Your task to perform on an android device: Search for Italian restaurants on Maps Image 0: 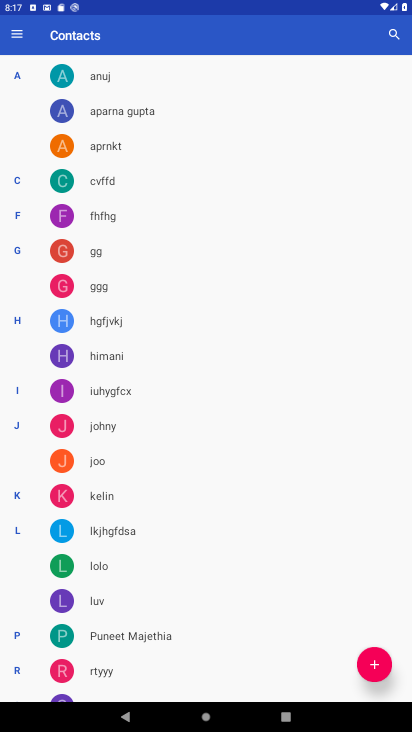
Step 0: press home button
Your task to perform on an android device: Search for Italian restaurants on Maps Image 1: 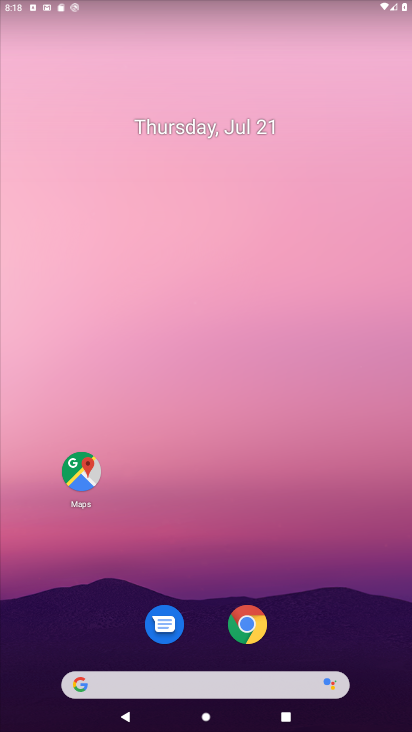
Step 1: click (75, 482)
Your task to perform on an android device: Search for Italian restaurants on Maps Image 2: 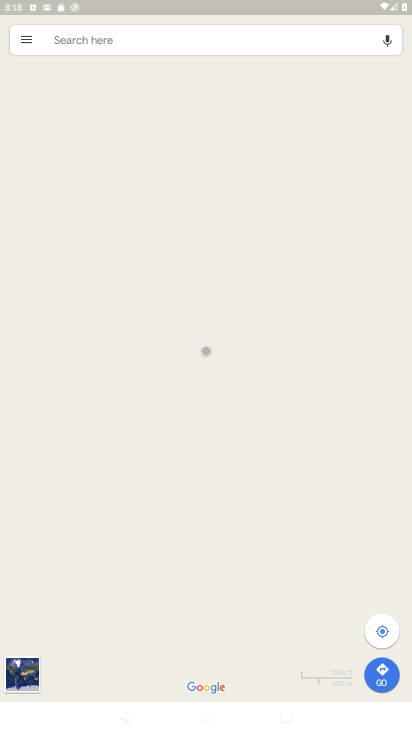
Step 2: click (223, 45)
Your task to perform on an android device: Search for Italian restaurants on Maps Image 3: 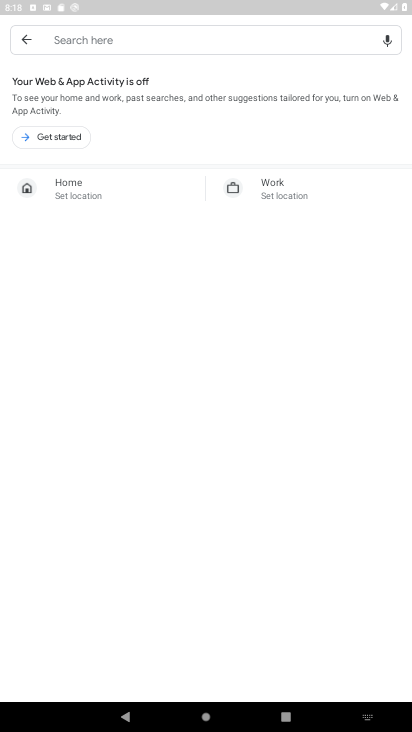
Step 3: type "Italian restaurants "
Your task to perform on an android device: Search for Italian restaurants on Maps Image 4: 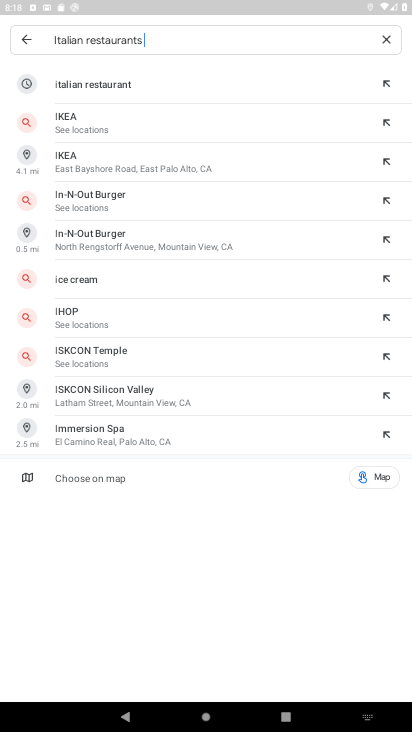
Step 4: type ""
Your task to perform on an android device: Search for Italian restaurants on Maps Image 5: 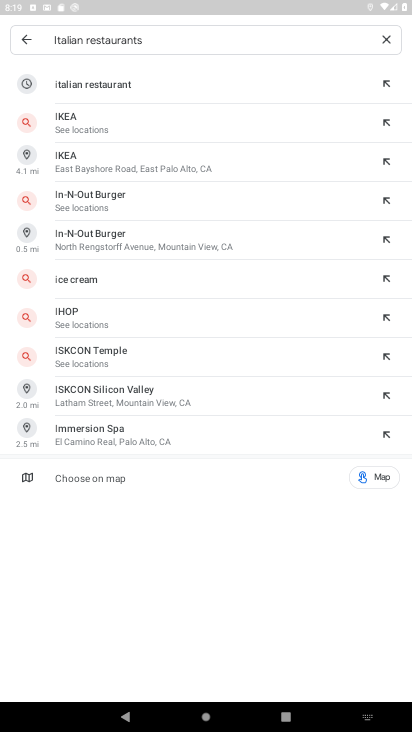
Step 5: click (193, 69)
Your task to perform on an android device: Search for Italian restaurants on Maps Image 6: 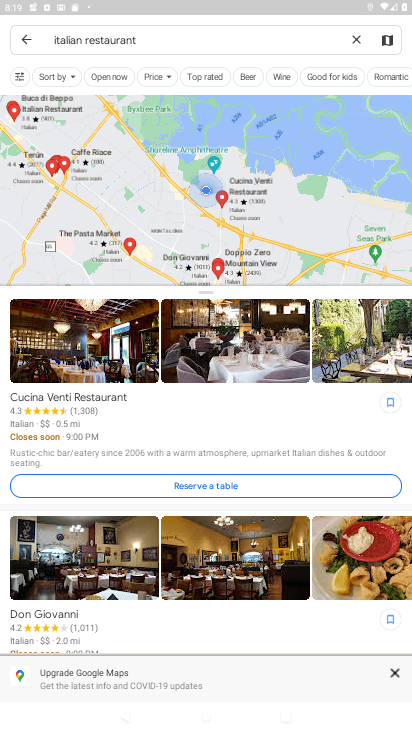
Step 6: task complete